Your task to perform on an android device: turn on priority inbox in the gmail app Image 0: 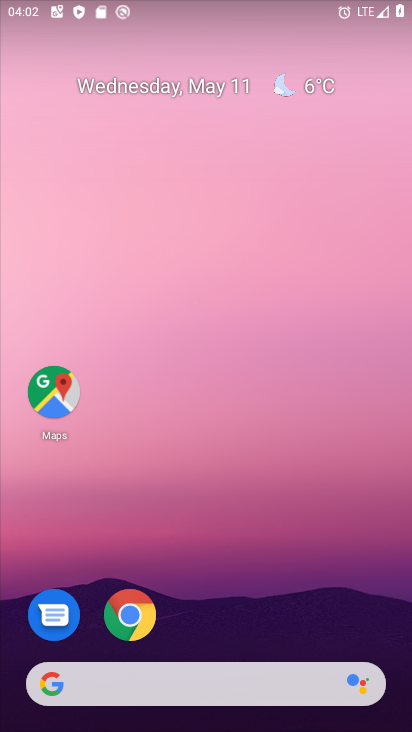
Step 0: drag from (280, 582) to (224, 74)
Your task to perform on an android device: turn on priority inbox in the gmail app Image 1: 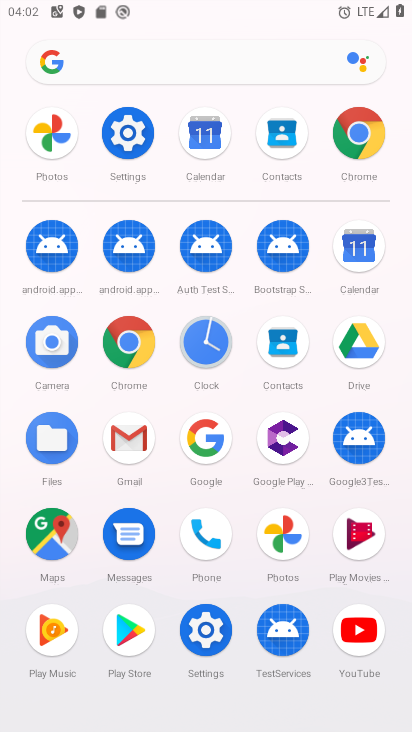
Step 1: click (143, 427)
Your task to perform on an android device: turn on priority inbox in the gmail app Image 2: 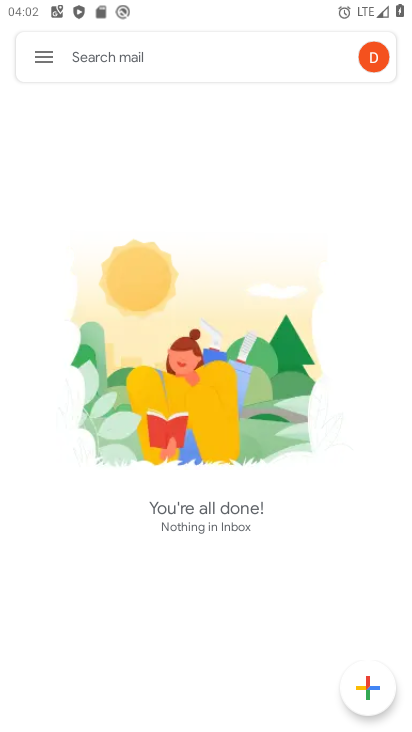
Step 2: click (43, 57)
Your task to perform on an android device: turn on priority inbox in the gmail app Image 3: 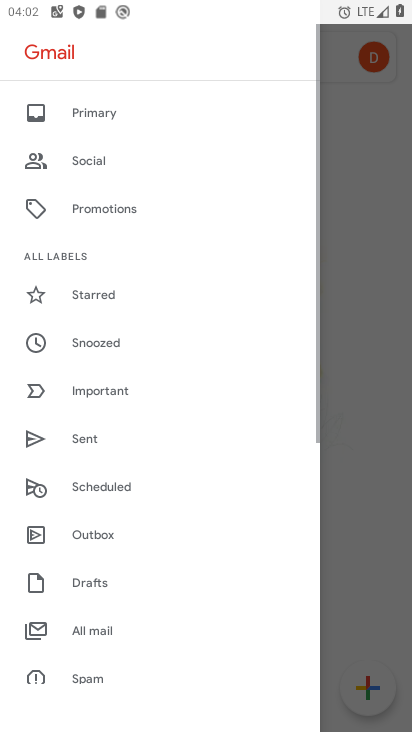
Step 3: drag from (197, 594) to (215, 92)
Your task to perform on an android device: turn on priority inbox in the gmail app Image 4: 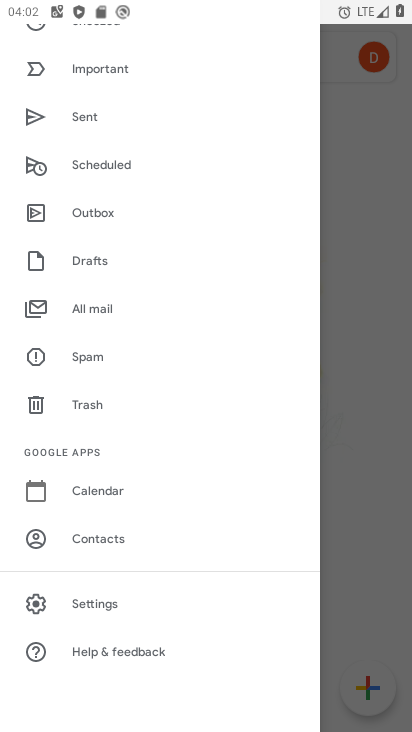
Step 4: click (108, 607)
Your task to perform on an android device: turn on priority inbox in the gmail app Image 5: 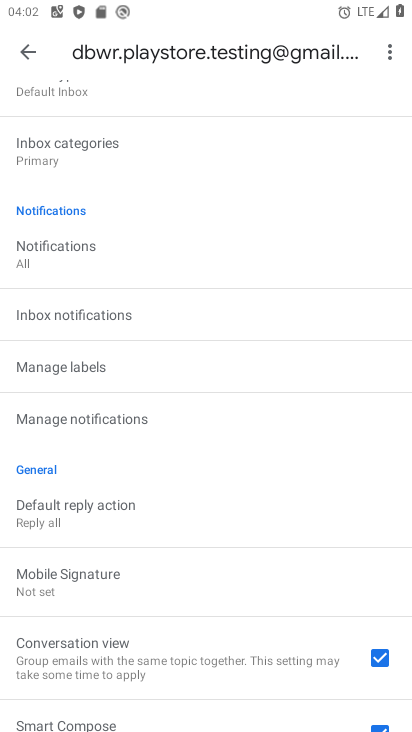
Step 5: drag from (154, 252) to (206, 728)
Your task to perform on an android device: turn on priority inbox in the gmail app Image 6: 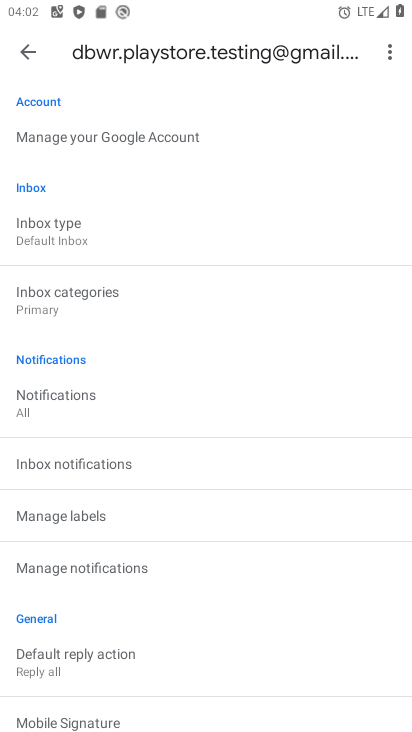
Step 6: click (77, 231)
Your task to perform on an android device: turn on priority inbox in the gmail app Image 7: 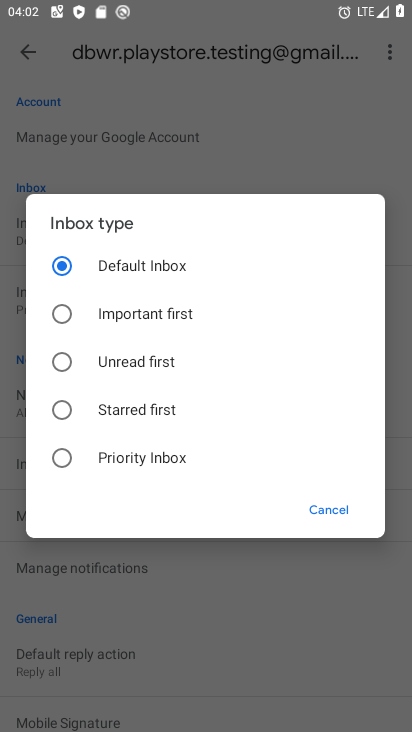
Step 7: click (146, 453)
Your task to perform on an android device: turn on priority inbox in the gmail app Image 8: 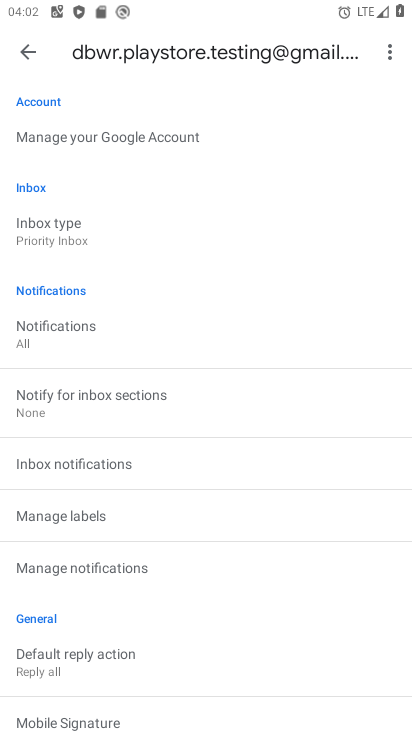
Step 8: task complete